Your task to perform on an android device: turn off javascript in the chrome app Image 0: 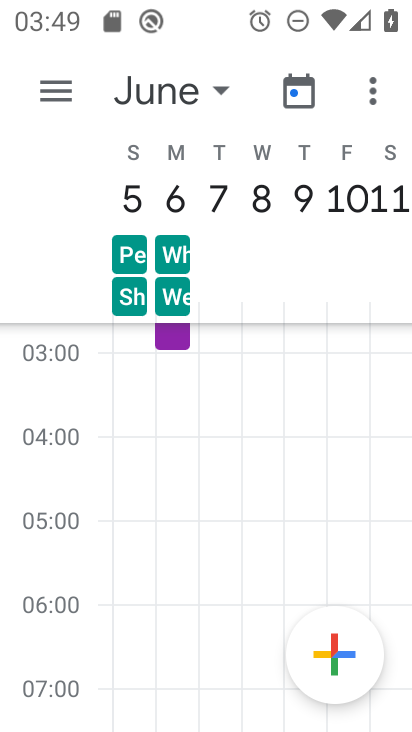
Step 0: press home button
Your task to perform on an android device: turn off javascript in the chrome app Image 1: 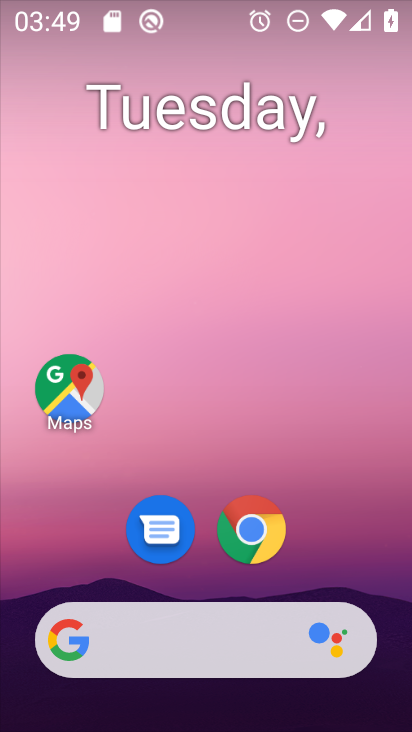
Step 1: click (304, 577)
Your task to perform on an android device: turn off javascript in the chrome app Image 2: 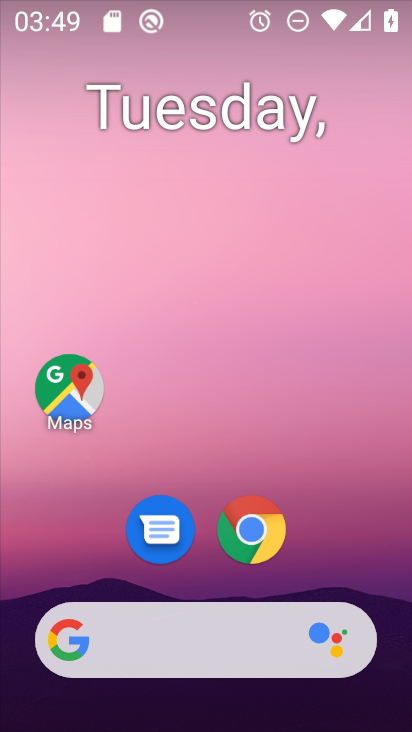
Step 2: click (272, 524)
Your task to perform on an android device: turn off javascript in the chrome app Image 3: 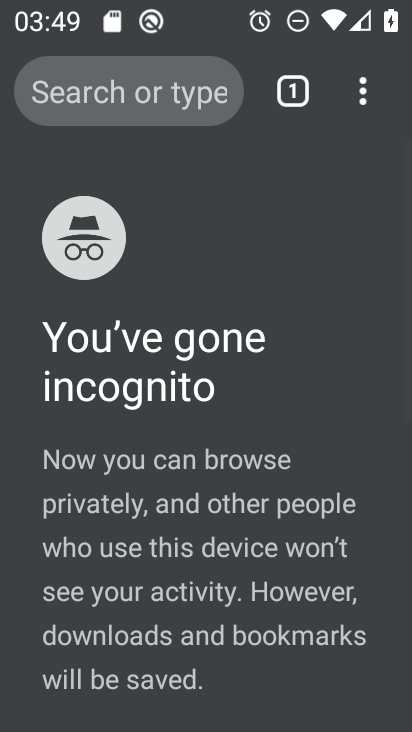
Step 3: click (375, 83)
Your task to perform on an android device: turn off javascript in the chrome app Image 4: 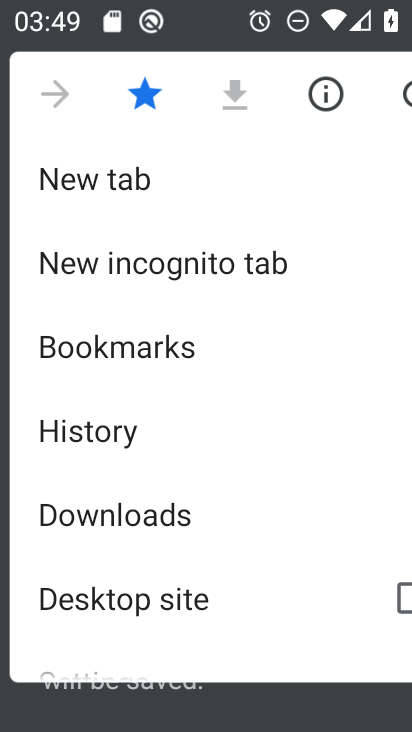
Step 4: drag from (210, 584) to (240, 281)
Your task to perform on an android device: turn off javascript in the chrome app Image 5: 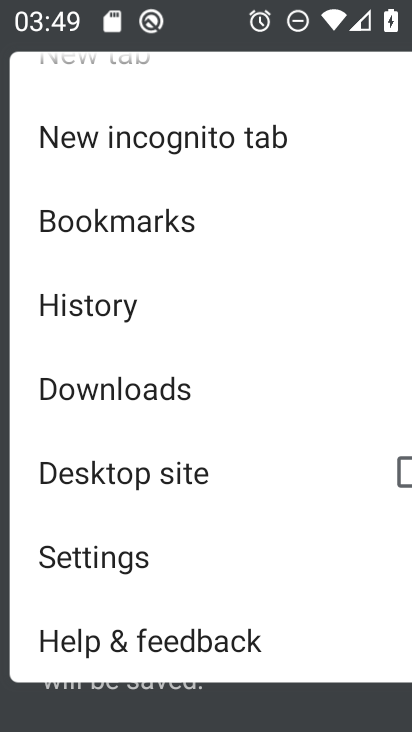
Step 5: click (126, 550)
Your task to perform on an android device: turn off javascript in the chrome app Image 6: 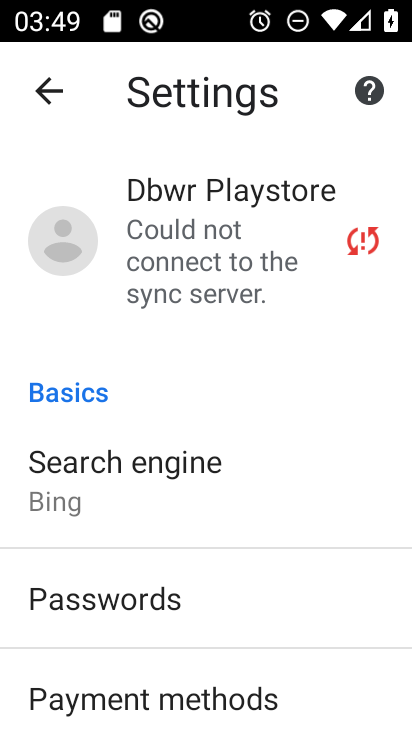
Step 6: drag from (225, 622) to (212, 247)
Your task to perform on an android device: turn off javascript in the chrome app Image 7: 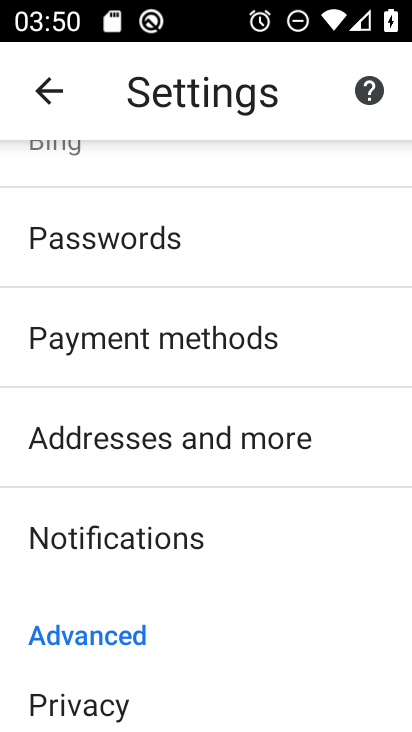
Step 7: drag from (233, 489) to (245, 226)
Your task to perform on an android device: turn off javascript in the chrome app Image 8: 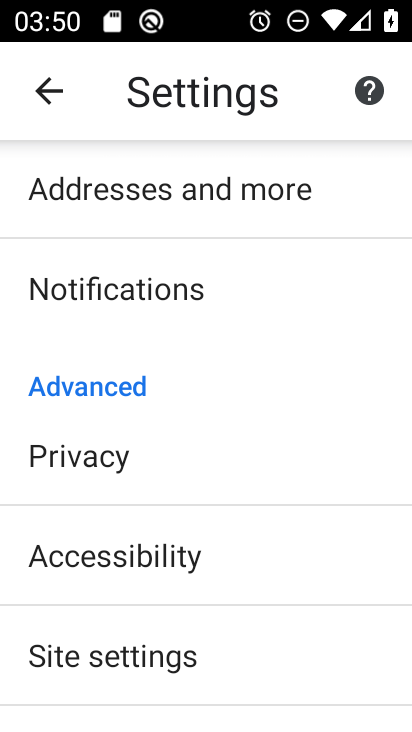
Step 8: drag from (241, 594) to (242, 308)
Your task to perform on an android device: turn off javascript in the chrome app Image 9: 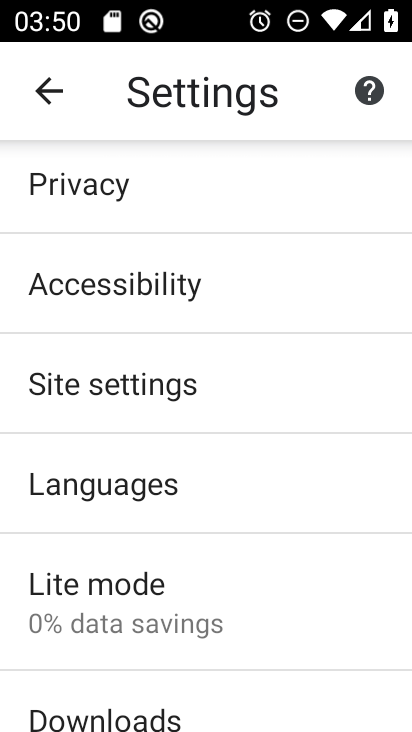
Step 9: click (264, 386)
Your task to perform on an android device: turn off javascript in the chrome app Image 10: 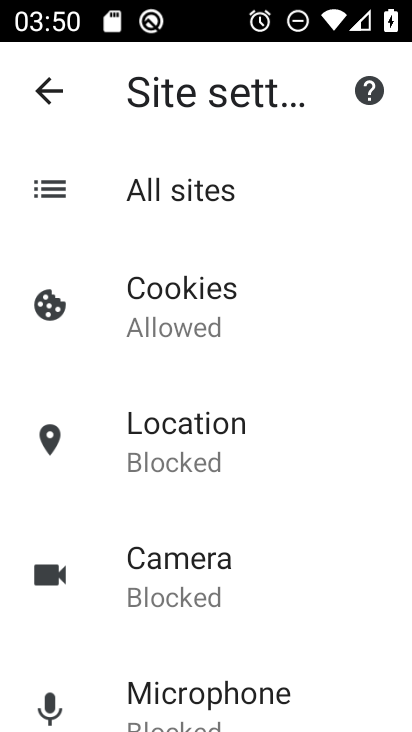
Step 10: drag from (278, 403) to (277, 312)
Your task to perform on an android device: turn off javascript in the chrome app Image 11: 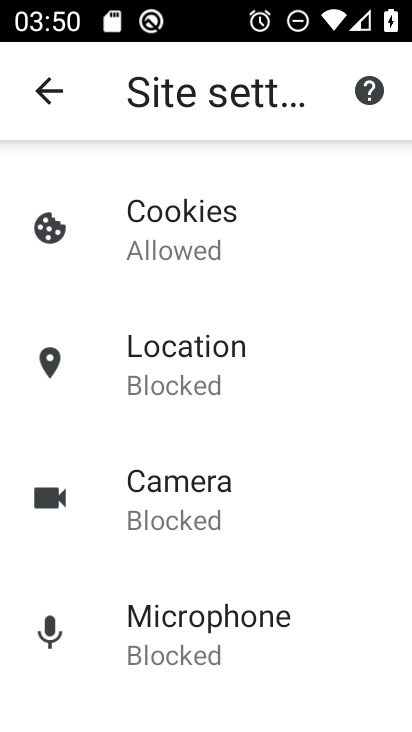
Step 11: drag from (212, 567) to (227, 310)
Your task to perform on an android device: turn off javascript in the chrome app Image 12: 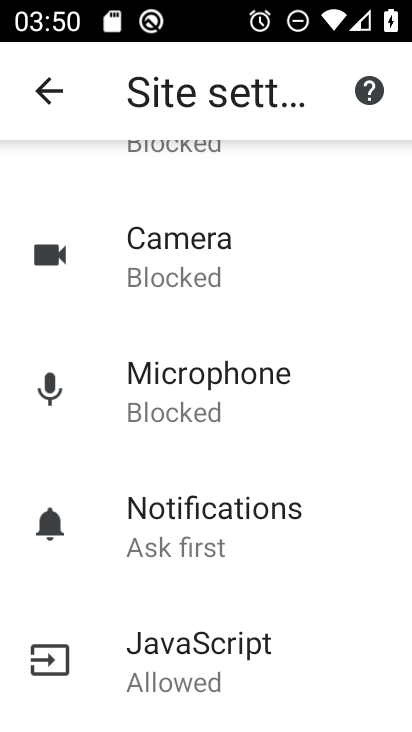
Step 12: click (220, 683)
Your task to perform on an android device: turn off javascript in the chrome app Image 13: 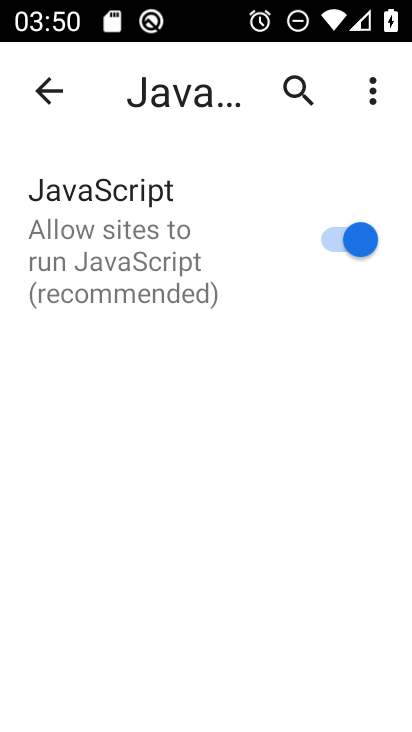
Step 13: click (324, 232)
Your task to perform on an android device: turn off javascript in the chrome app Image 14: 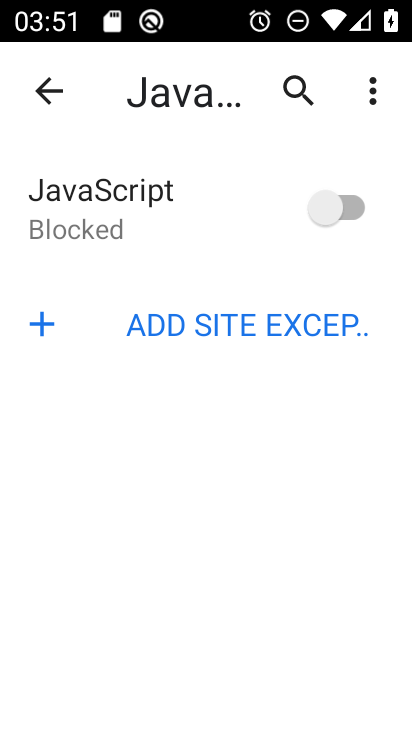
Step 14: task complete